Your task to perform on an android device: toggle show notifications on the lock screen Image 0: 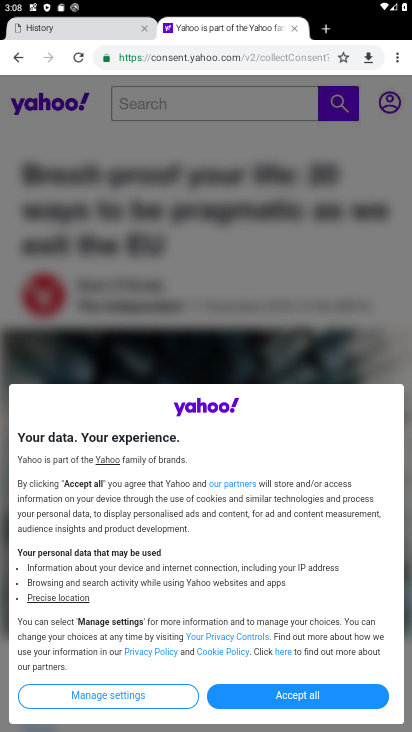
Step 0: press home button
Your task to perform on an android device: toggle show notifications on the lock screen Image 1: 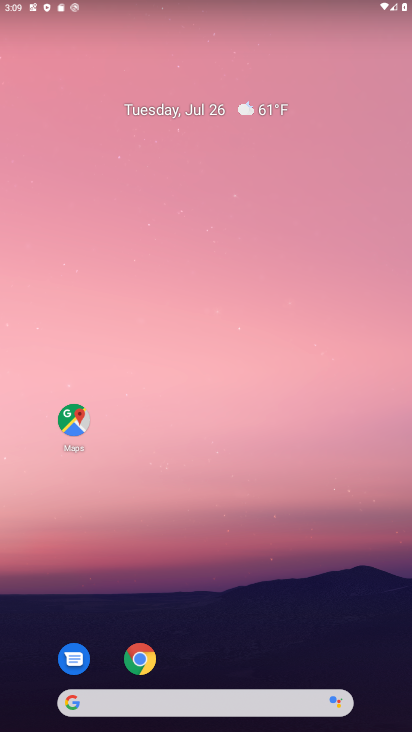
Step 1: drag from (265, 156) to (144, 0)
Your task to perform on an android device: toggle show notifications on the lock screen Image 2: 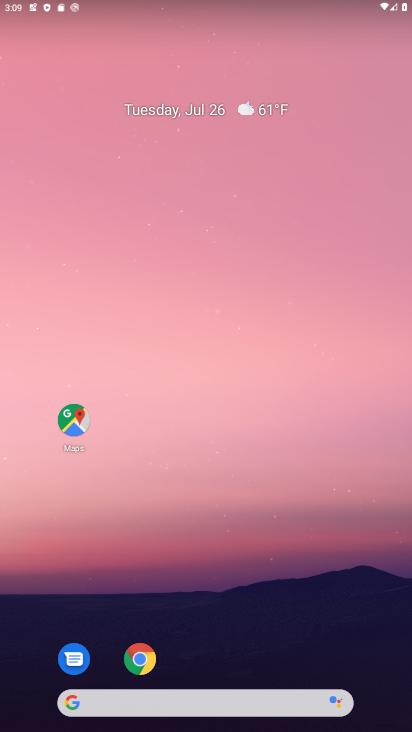
Step 2: drag from (213, 529) to (225, 113)
Your task to perform on an android device: toggle show notifications on the lock screen Image 3: 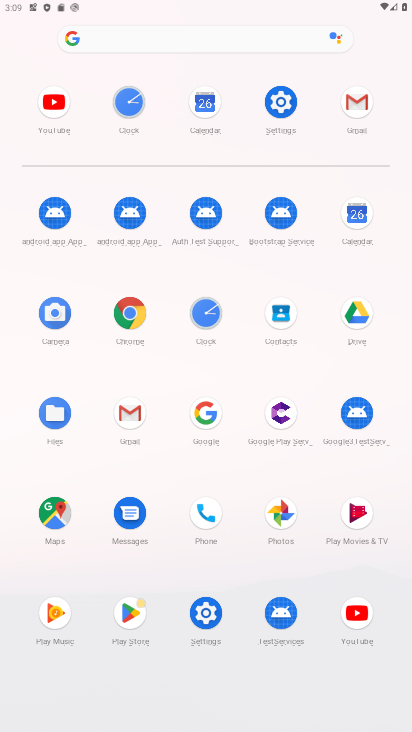
Step 3: click (277, 115)
Your task to perform on an android device: toggle show notifications on the lock screen Image 4: 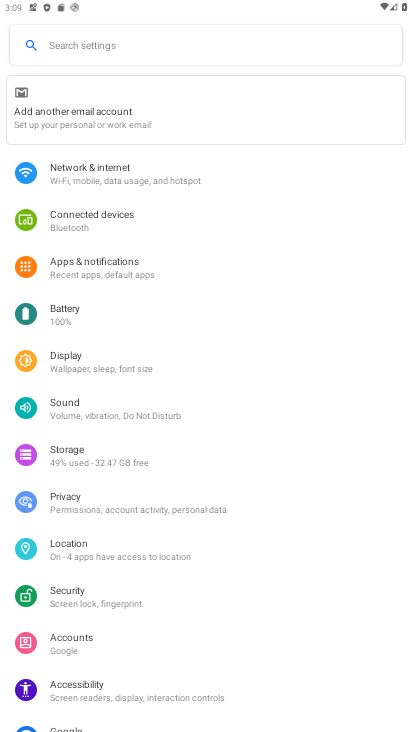
Step 4: click (101, 265)
Your task to perform on an android device: toggle show notifications on the lock screen Image 5: 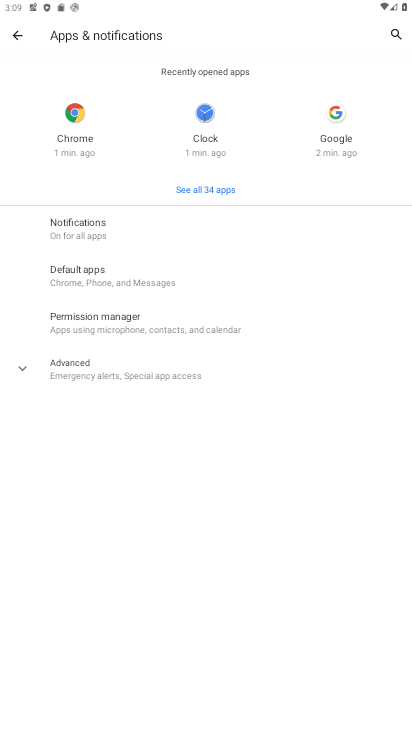
Step 5: click (114, 236)
Your task to perform on an android device: toggle show notifications on the lock screen Image 6: 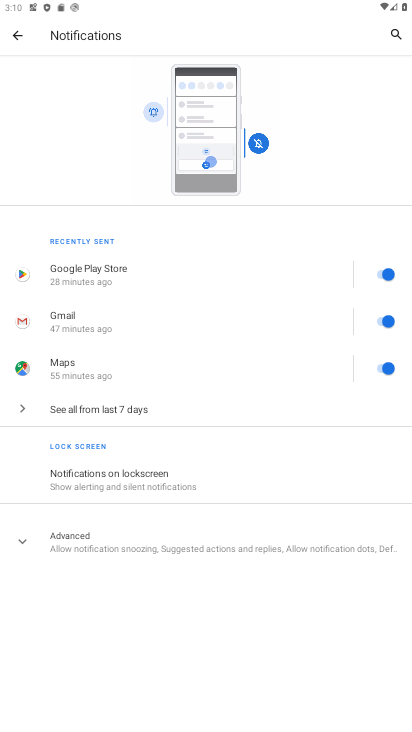
Step 6: click (207, 487)
Your task to perform on an android device: toggle show notifications on the lock screen Image 7: 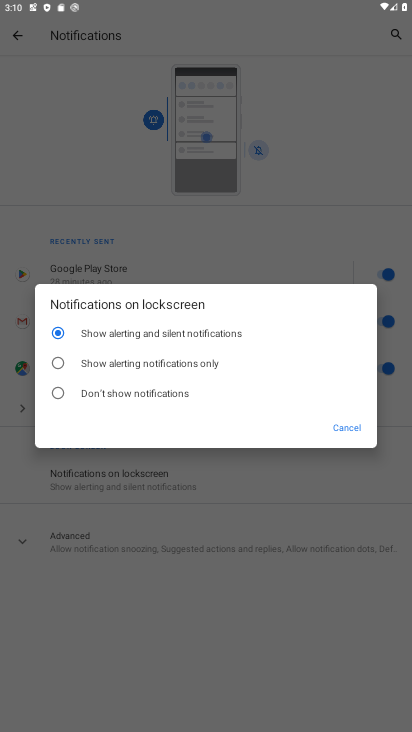
Step 7: click (74, 393)
Your task to perform on an android device: toggle show notifications on the lock screen Image 8: 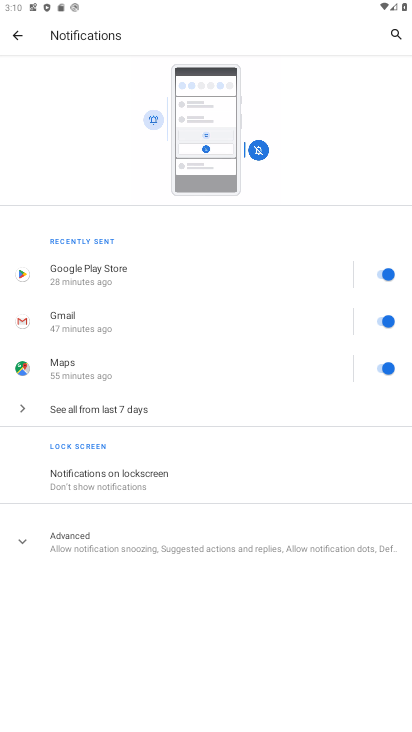
Step 8: task complete